Your task to perform on an android device: Open Google Maps Image 0: 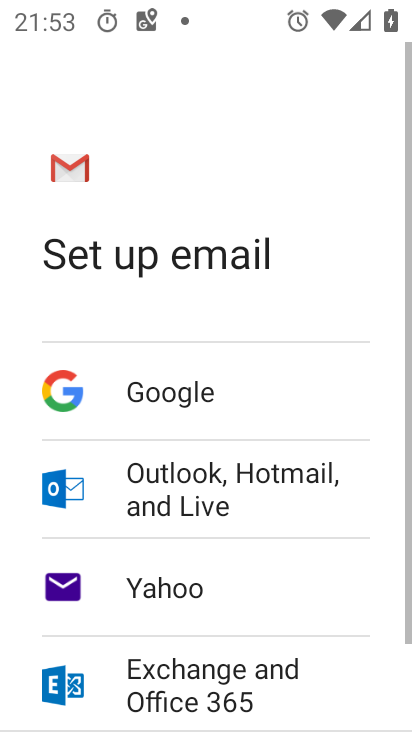
Step 0: press home button
Your task to perform on an android device: Open Google Maps Image 1: 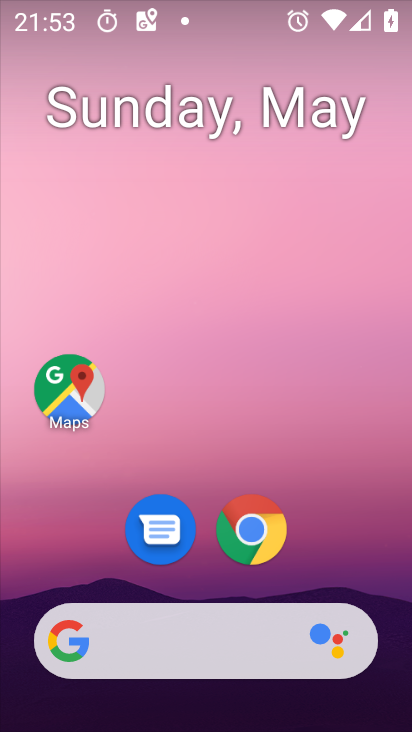
Step 1: click (67, 392)
Your task to perform on an android device: Open Google Maps Image 2: 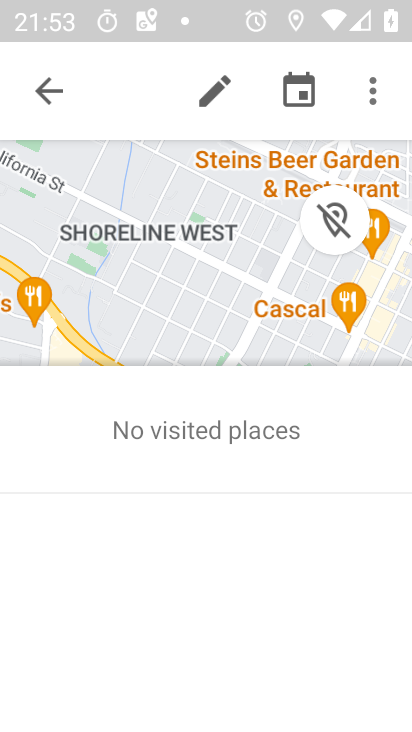
Step 2: task complete